Your task to perform on an android device: Open the map Image 0: 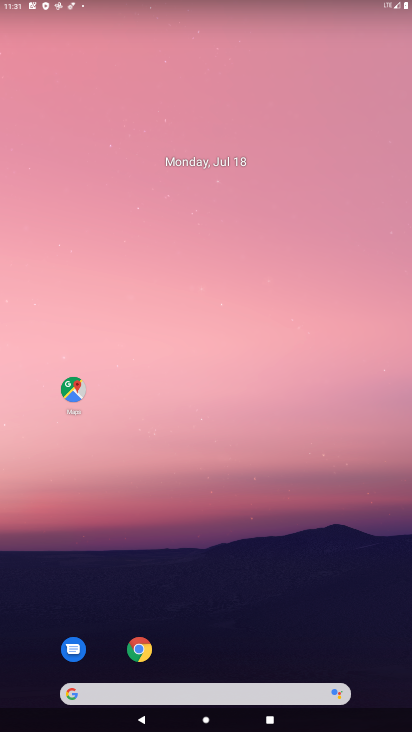
Step 0: click (78, 392)
Your task to perform on an android device: Open the map Image 1: 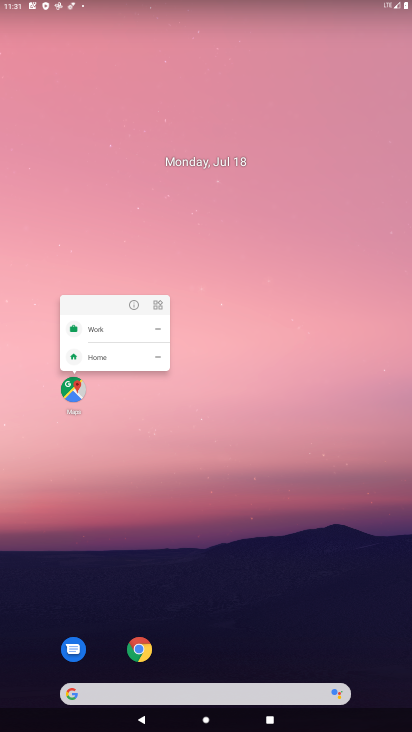
Step 1: click (78, 392)
Your task to perform on an android device: Open the map Image 2: 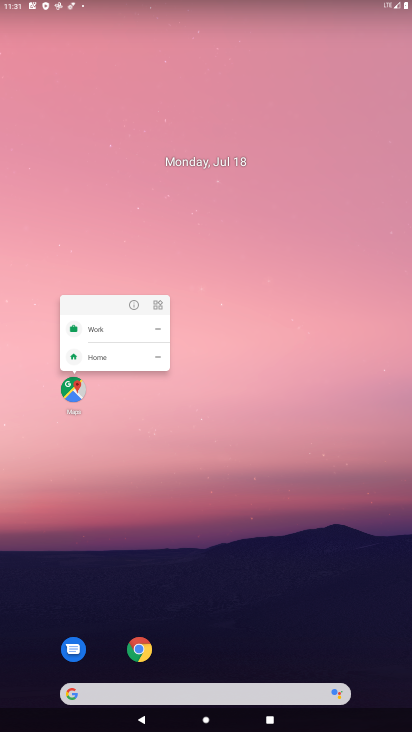
Step 2: click (78, 392)
Your task to perform on an android device: Open the map Image 3: 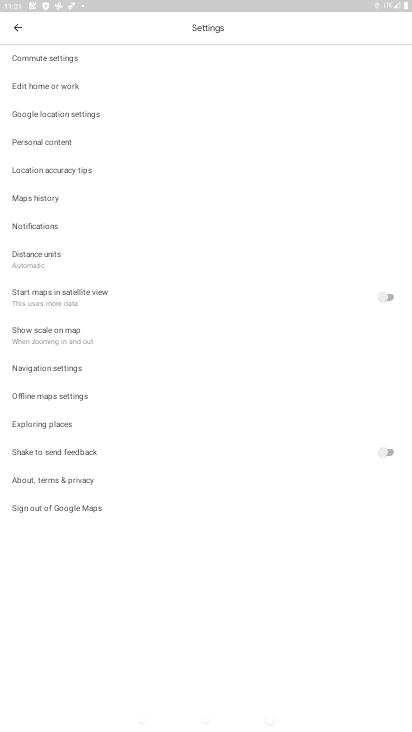
Step 3: click (18, 27)
Your task to perform on an android device: Open the map Image 4: 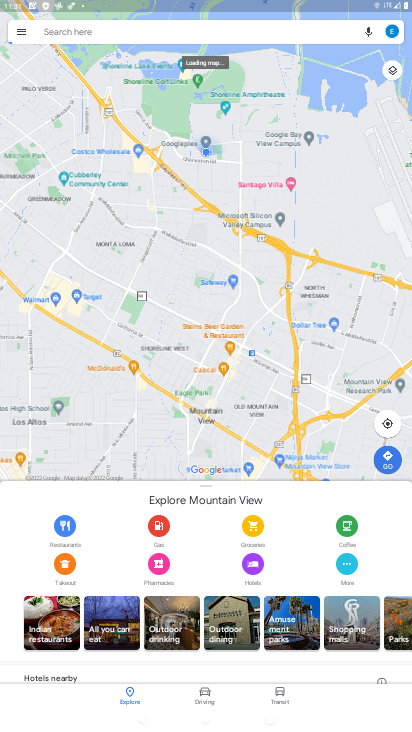
Step 4: task complete